Your task to perform on an android device: open a new tab in the chrome app Image 0: 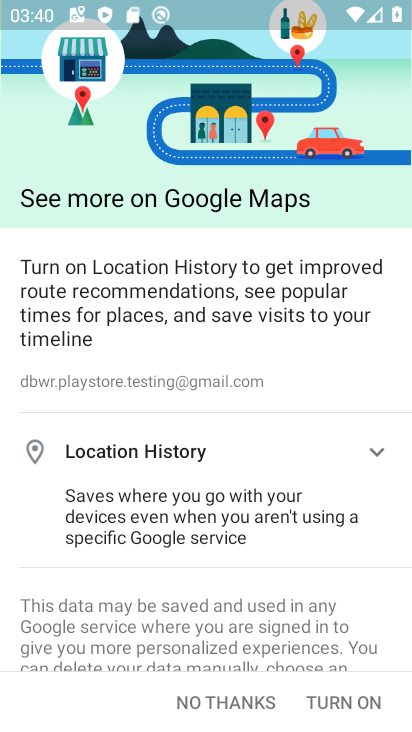
Step 0: press back button
Your task to perform on an android device: open a new tab in the chrome app Image 1: 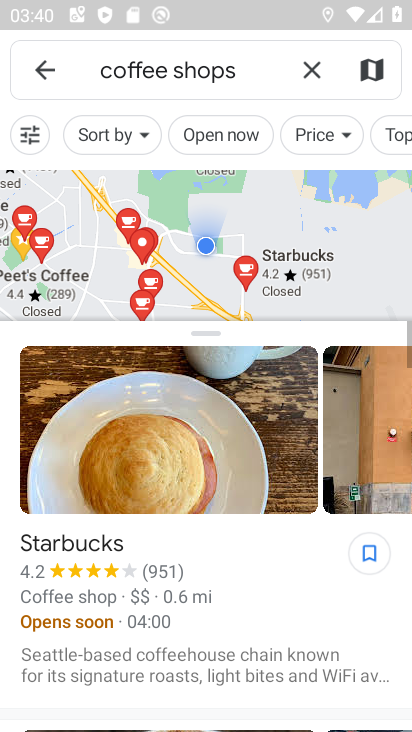
Step 1: press home button
Your task to perform on an android device: open a new tab in the chrome app Image 2: 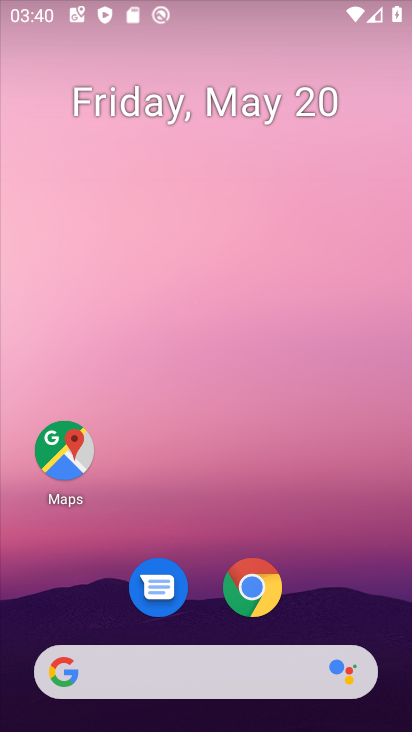
Step 2: drag from (332, 588) to (278, 95)
Your task to perform on an android device: open a new tab in the chrome app Image 3: 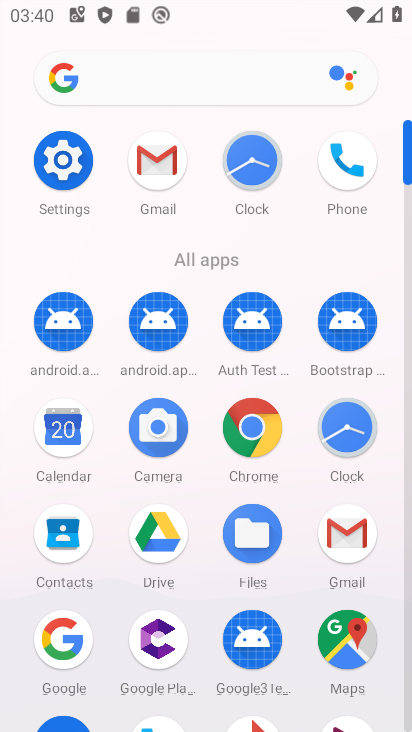
Step 3: drag from (24, 513) to (27, 167)
Your task to perform on an android device: open a new tab in the chrome app Image 4: 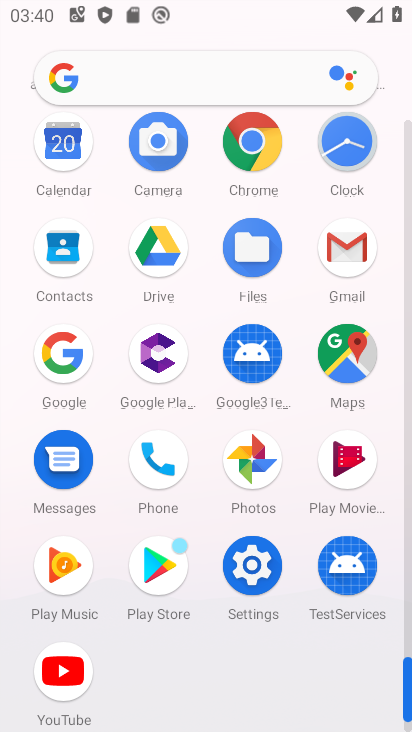
Step 4: drag from (13, 515) to (33, 170)
Your task to perform on an android device: open a new tab in the chrome app Image 5: 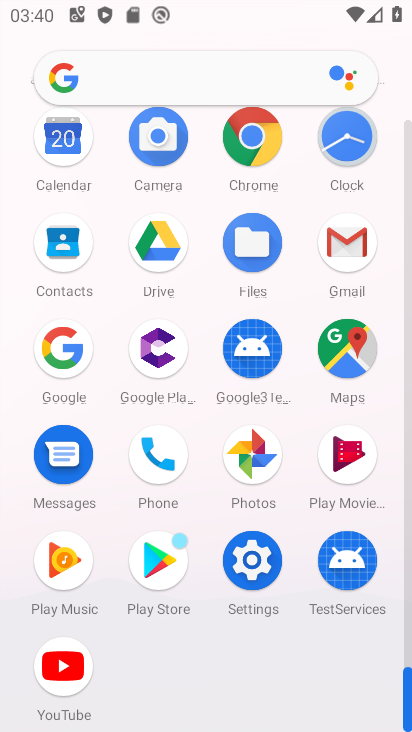
Step 5: drag from (18, 567) to (64, 188)
Your task to perform on an android device: open a new tab in the chrome app Image 6: 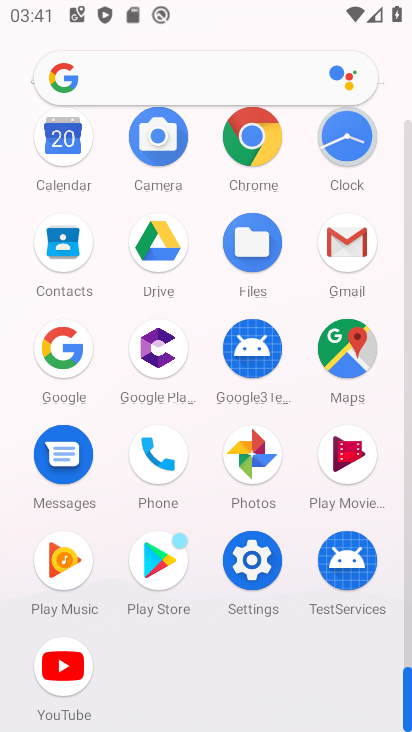
Step 6: click (262, 129)
Your task to perform on an android device: open a new tab in the chrome app Image 7: 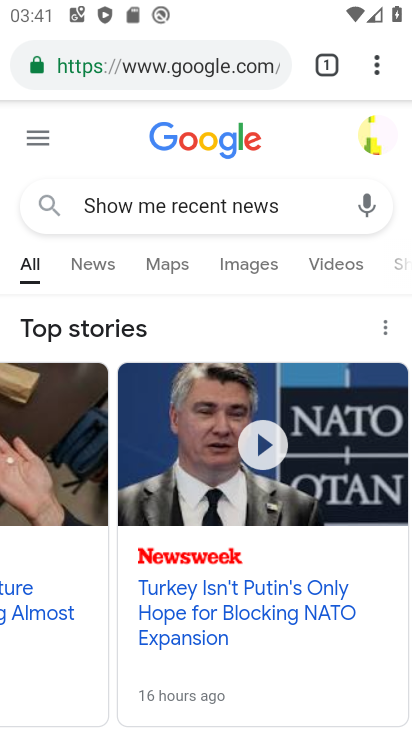
Step 7: task complete